Your task to perform on an android device: Show me recent news Image 0: 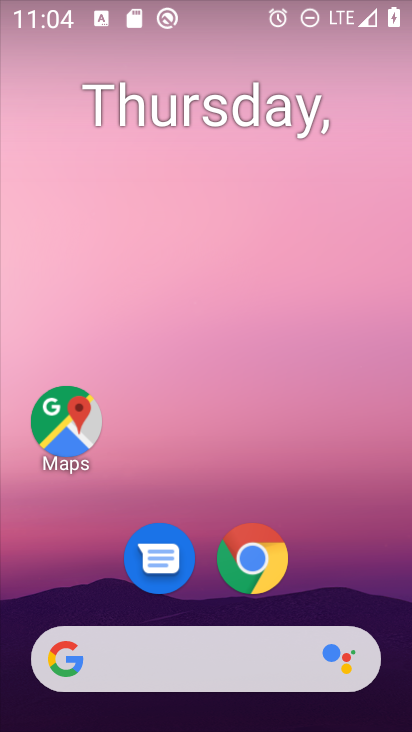
Step 0: drag from (6, 177) to (410, 235)
Your task to perform on an android device: Show me recent news Image 1: 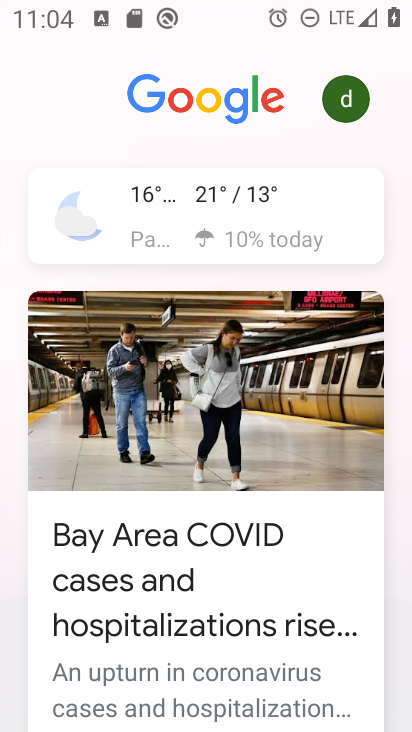
Step 1: task complete